Your task to perform on an android device: visit the assistant section in the google photos Image 0: 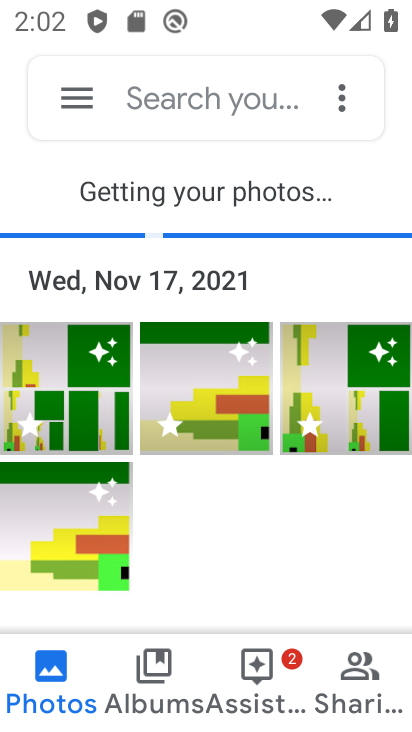
Step 0: press back button
Your task to perform on an android device: visit the assistant section in the google photos Image 1: 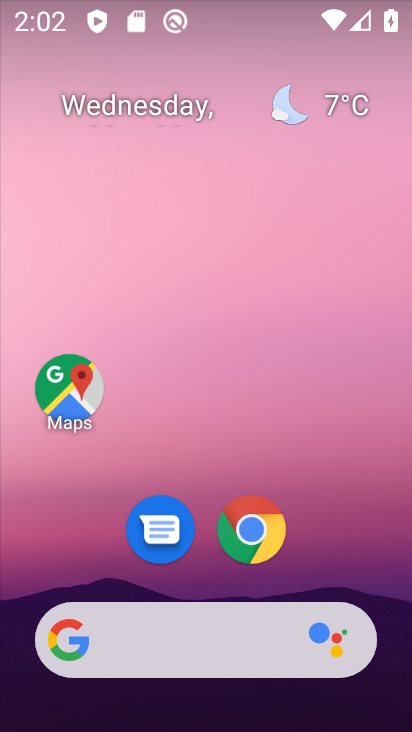
Step 1: drag from (13, 578) to (238, 144)
Your task to perform on an android device: visit the assistant section in the google photos Image 2: 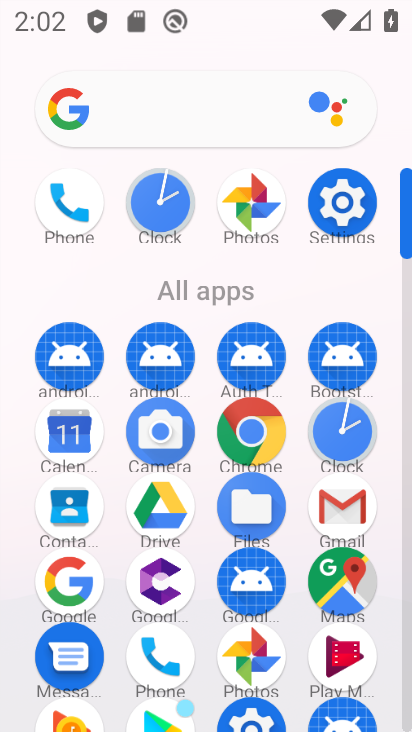
Step 2: click (259, 654)
Your task to perform on an android device: visit the assistant section in the google photos Image 3: 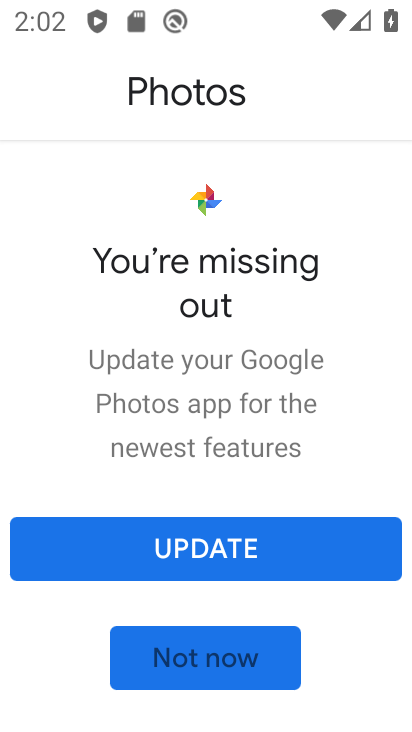
Step 3: click (174, 681)
Your task to perform on an android device: visit the assistant section in the google photos Image 4: 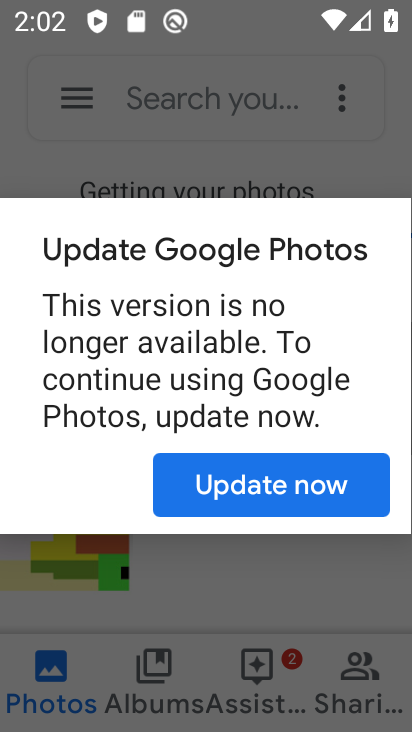
Step 4: click (276, 491)
Your task to perform on an android device: visit the assistant section in the google photos Image 5: 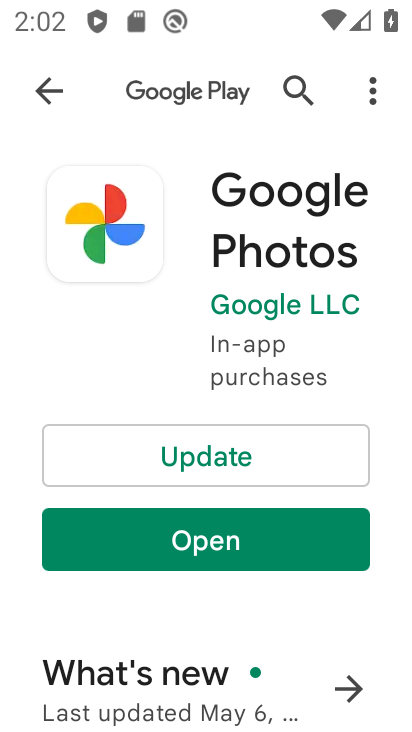
Step 5: click (261, 534)
Your task to perform on an android device: visit the assistant section in the google photos Image 6: 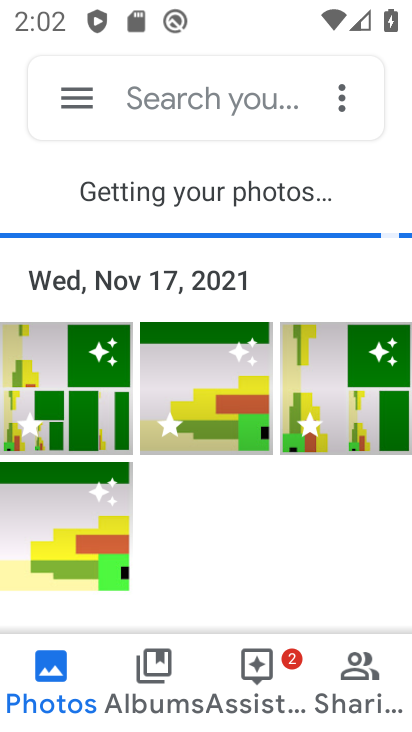
Step 6: click (248, 662)
Your task to perform on an android device: visit the assistant section in the google photos Image 7: 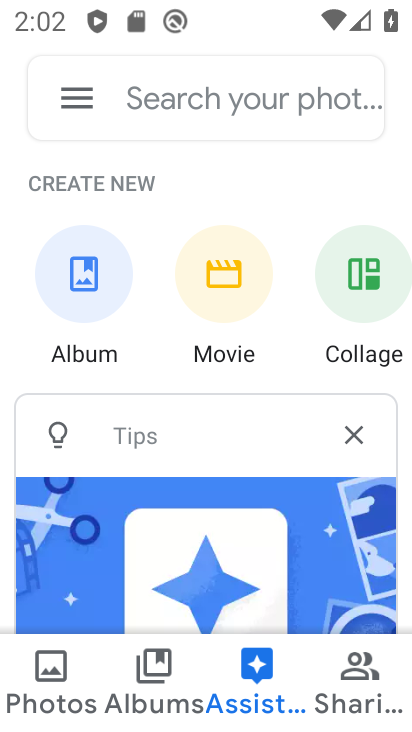
Step 7: task complete